Your task to perform on an android device: Open calendar and show me the third week of next month Image 0: 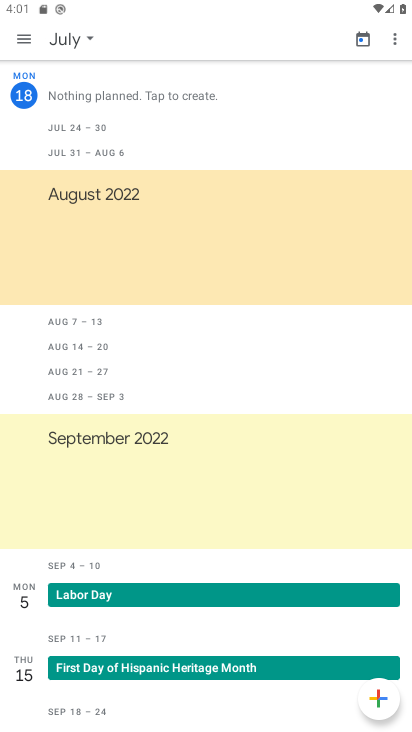
Step 0: press home button
Your task to perform on an android device: Open calendar and show me the third week of next month Image 1: 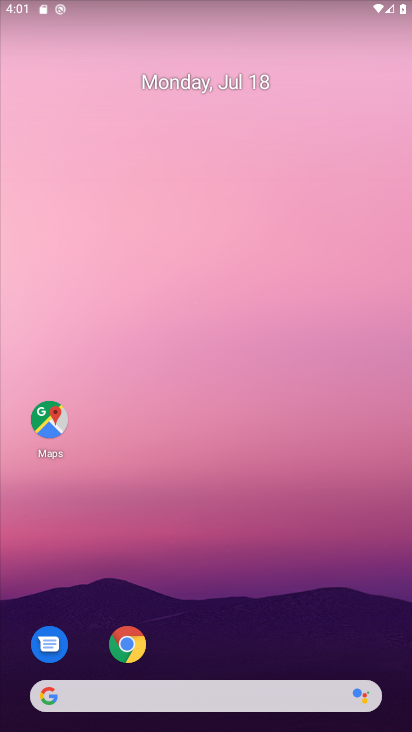
Step 1: drag from (222, 667) to (185, 2)
Your task to perform on an android device: Open calendar and show me the third week of next month Image 2: 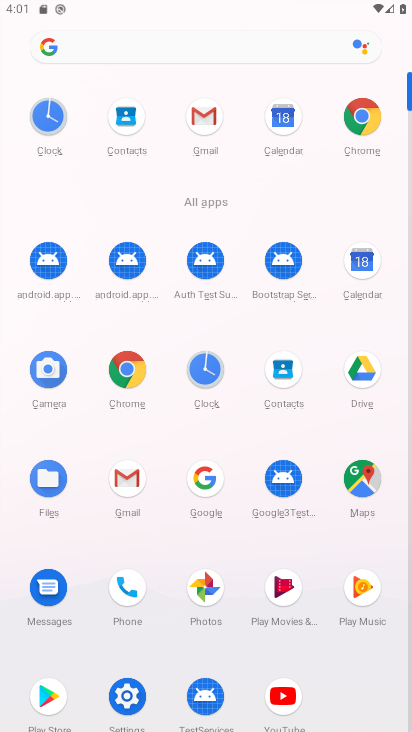
Step 2: click (291, 131)
Your task to perform on an android device: Open calendar and show me the third week of next month Image 3: 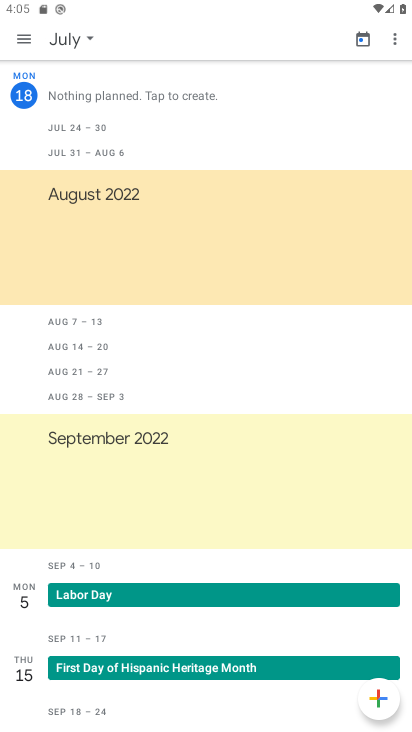
Step 3: task complete